Your task to perform on an android device: change timer sound Image 0: 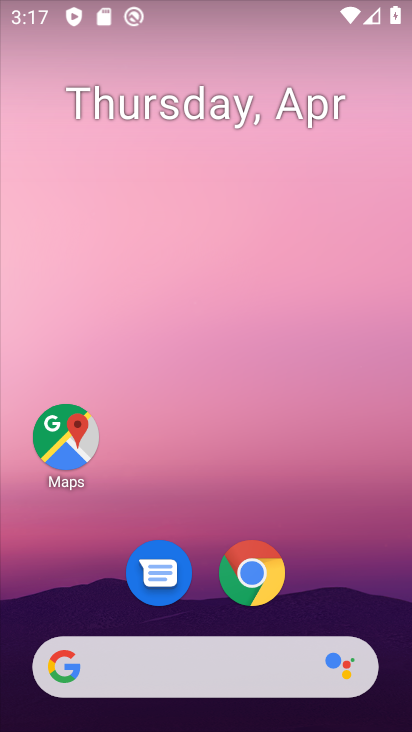
Step 0: drag from (358, 598) to (264, 37)
Your task to perform on an android device: change timer sound Image 1: 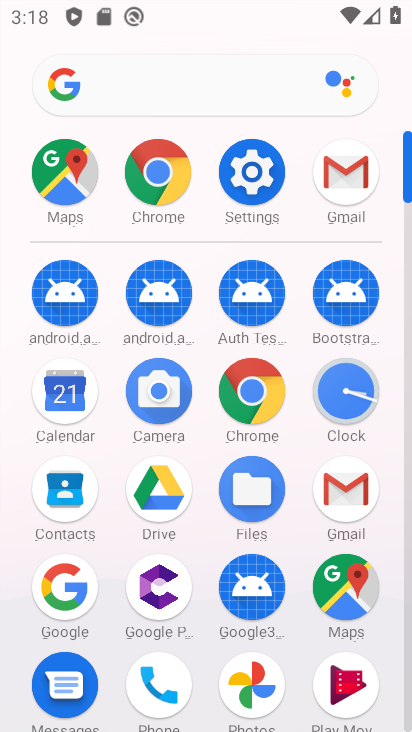
Step 1: click (336, 390)
Your task to perform on an android device: change timer sound Image 2: 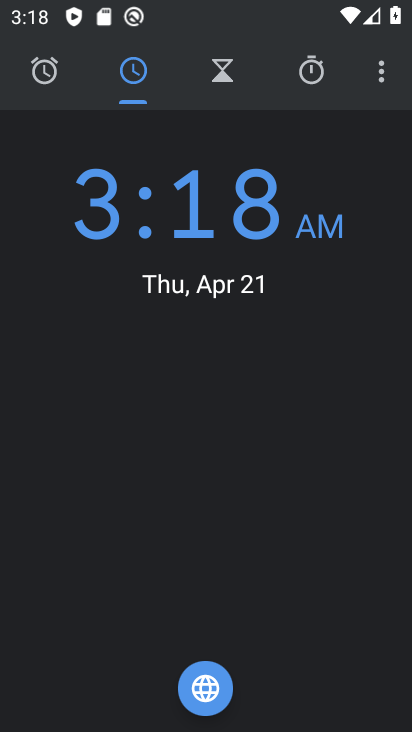
Step 2: click (382, 74)
Your task to perform on an android device: change timer sound Image 3: 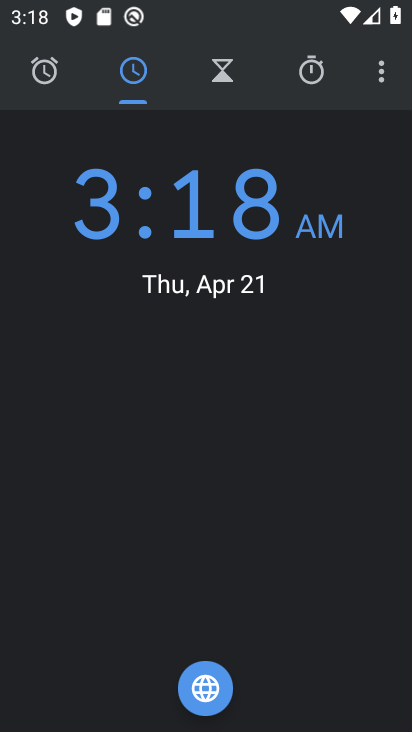
Step 3: click (378, 73)
Your task to perform on an android device: change timer sound Image 4: 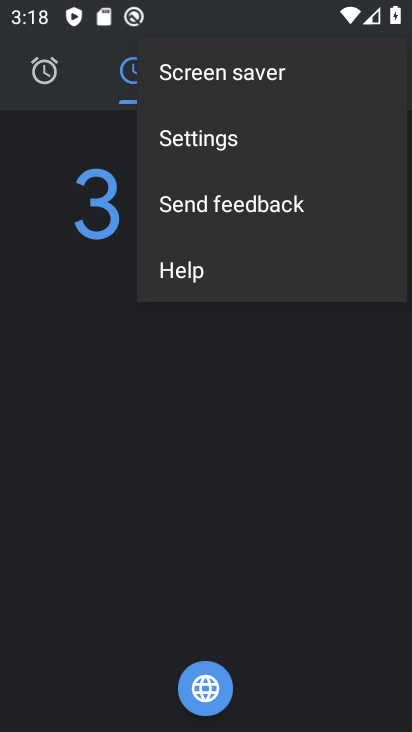
Step 4: click (323, 150)
Your task to perform on an android device: change timer sound Image 5: 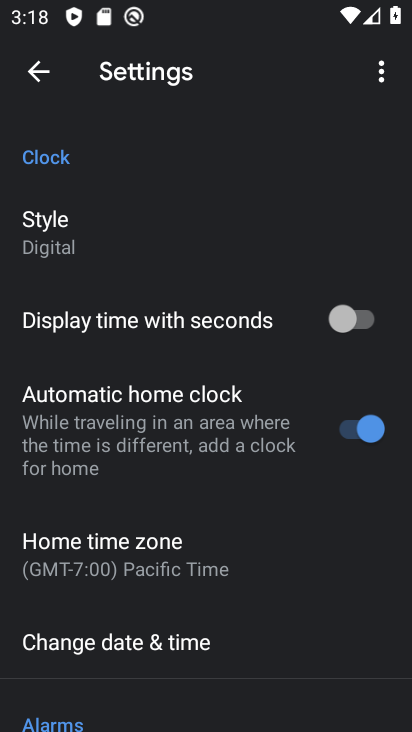
Step 5: drag from (163, 610) to (225, 122)
Your task to perform on an android device: change timer sound Image 6: 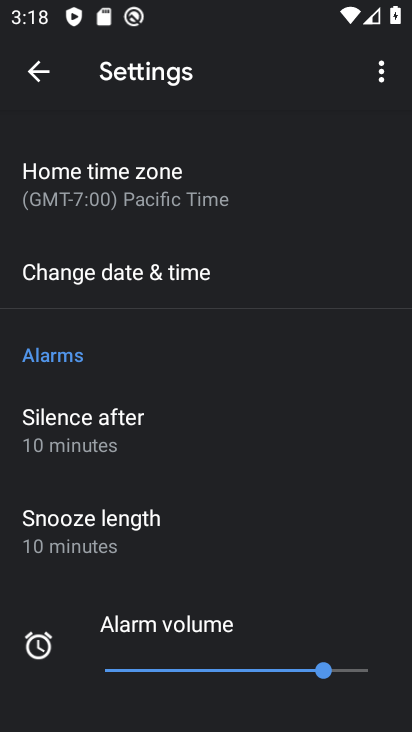
Step 6: drag from (175, 567) to (239, 236)
Your task to perform on an android device: change timer sound Image 7: 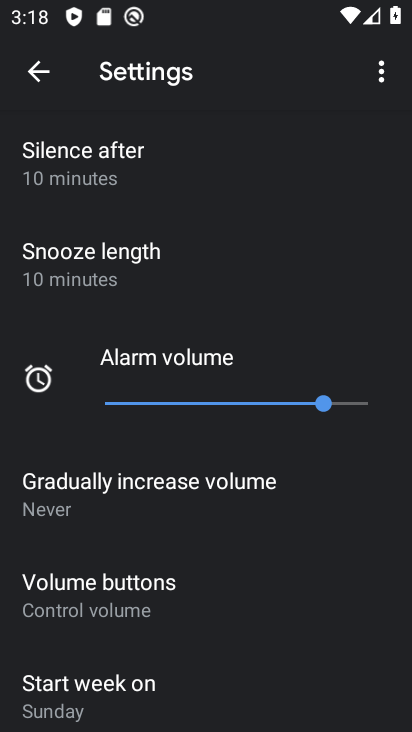
Step 7: drag from (200, 652) to (257, 341)
Your task to perform on an android device: change timer sound Image 8: 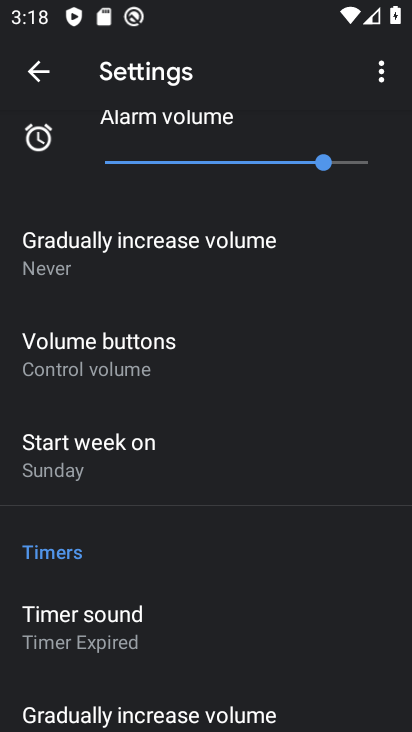
Step 8: drag from (185, 231) to (182, 499)
Your task to perform on an android device: change timer sound Image 9: 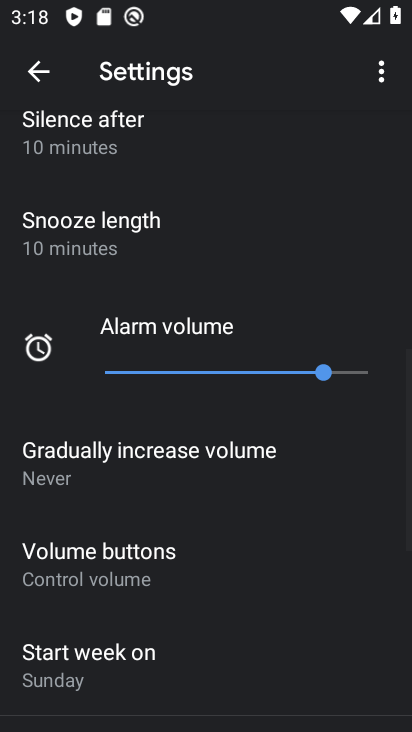
Step 9: drag from (128, 592) to (218, 202)
Your task to perform on an android device: change timer sound Image 10: 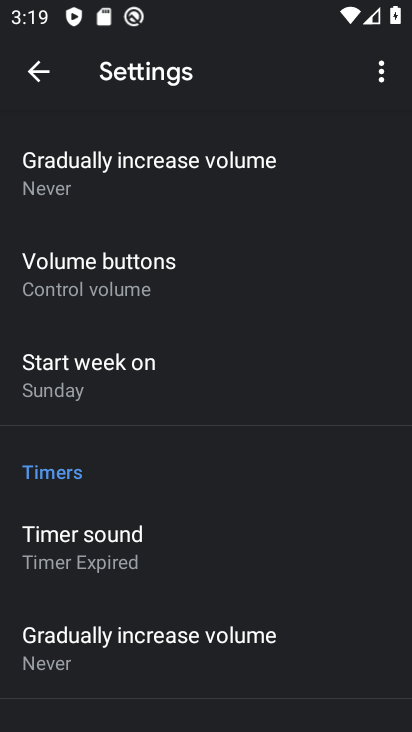
Step 10: click (131, 551)
Your task to perform on an android device: change timer sound Image 11: 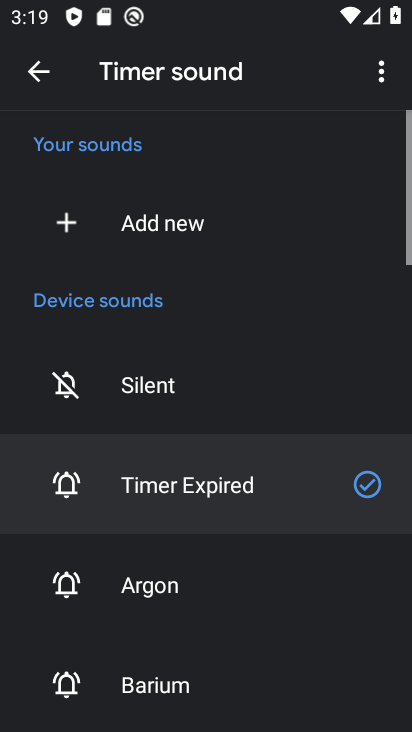
Step 11: click (198, 596)
Your task to perform on an android device: change timer sound Image 12: 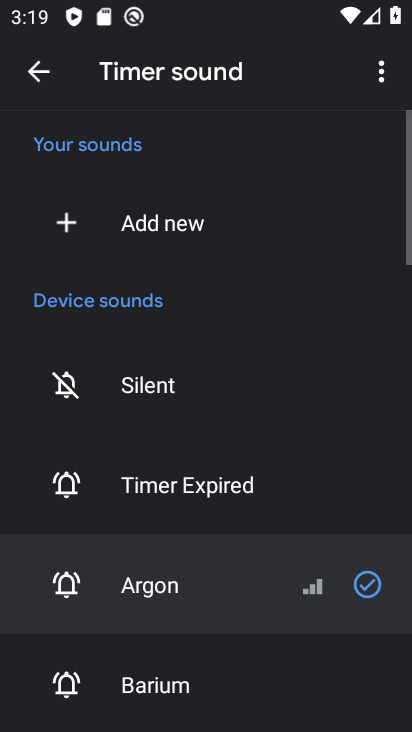
Step 12: task complete